Your task to perform on an android device: toggle notification dots Image 0: 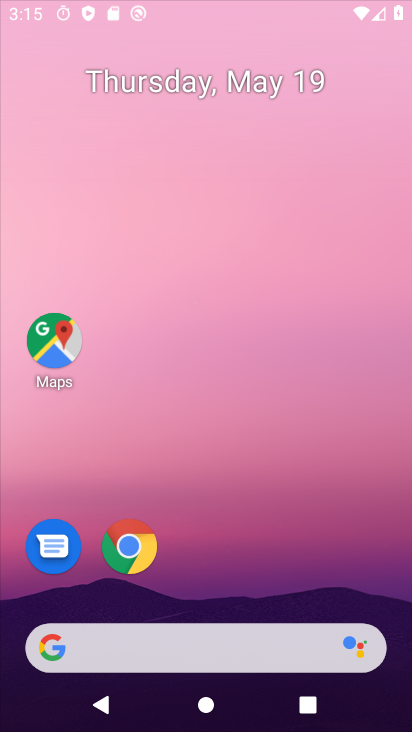
Step 0: press home button
Your task to perform on an android device: toggle notification dots Image 1: 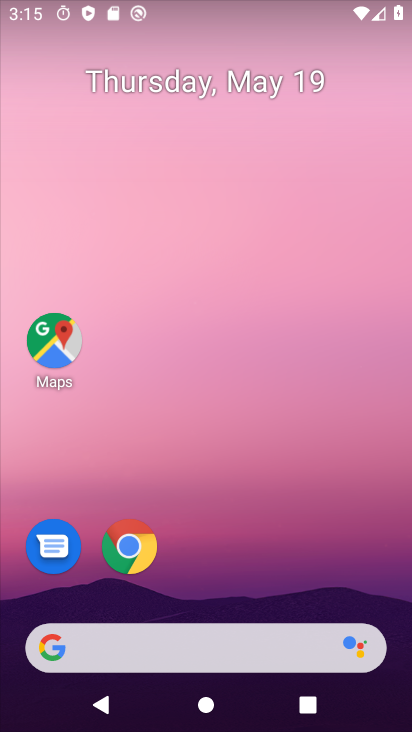
Step 1: drag from (220, 596) to (226, 55)
Your task to perform on an android device: toggle notification dots Image 2: 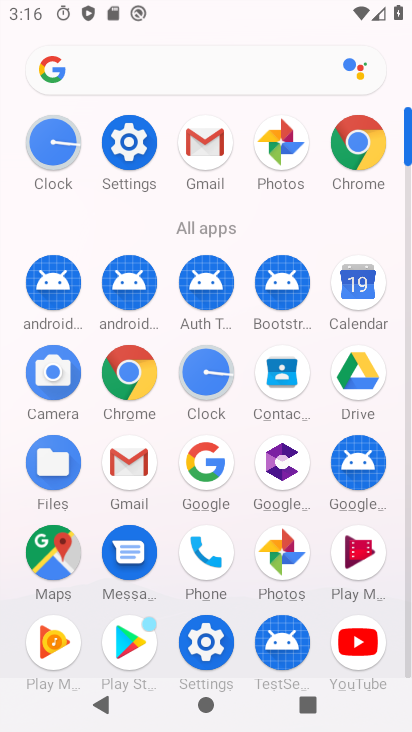
Step 2: click (129, 133)
Your task to perform on an android device: toggle notification dots Image 3: 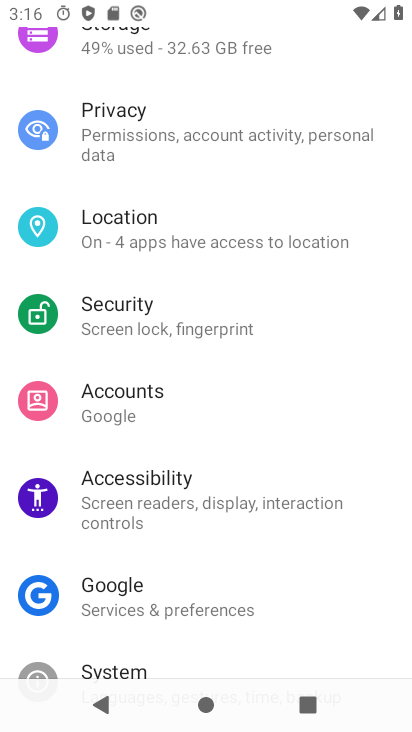
Step 3: drag from (197, 162) to (204, 587)
Your task to perform on an android device: toggle notification dots Image 4: 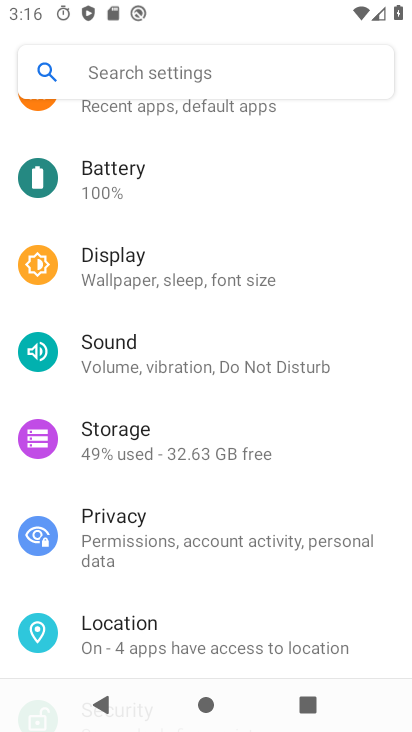
Step 4: click (176, 116)
Your task to perform on an android device: toggle notification dots Image 5: 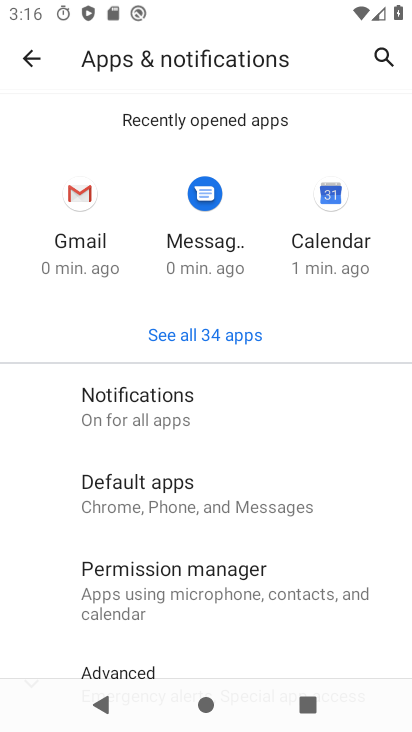
Step 5: click (204, 408)
Your task to perform on an android device: toggle notification dots Image 6: 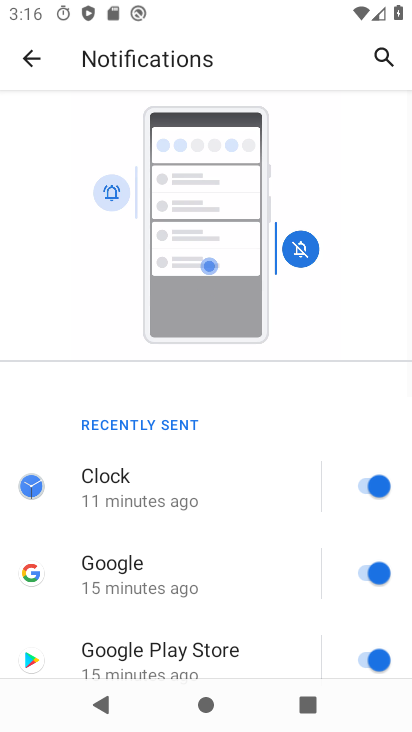
Step 6: drag from (245, 618) to (270, 110)
Your task to perform on an android device: toggle notification dots Image 7: 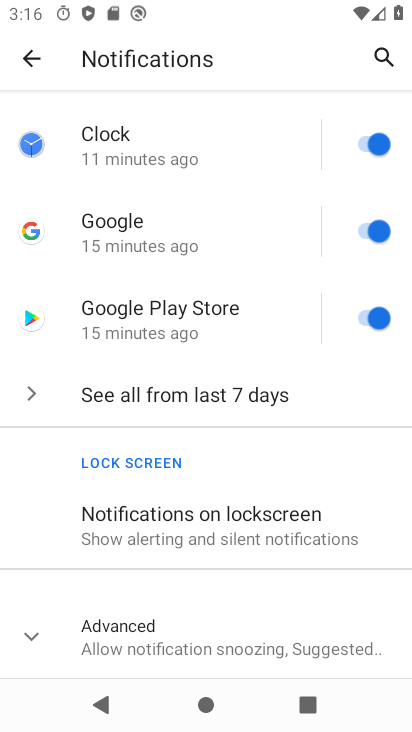
Step 7: click (148, 638)
Your task to perform on an android device: toggle notification dots Image 8: 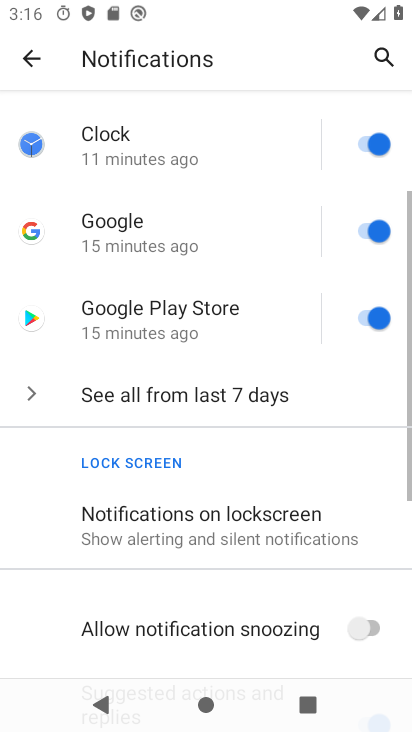
Step 8: drag from (163, 624) to (207, 159)
Your task to perform on an android device: toggle notification dots Image 9: 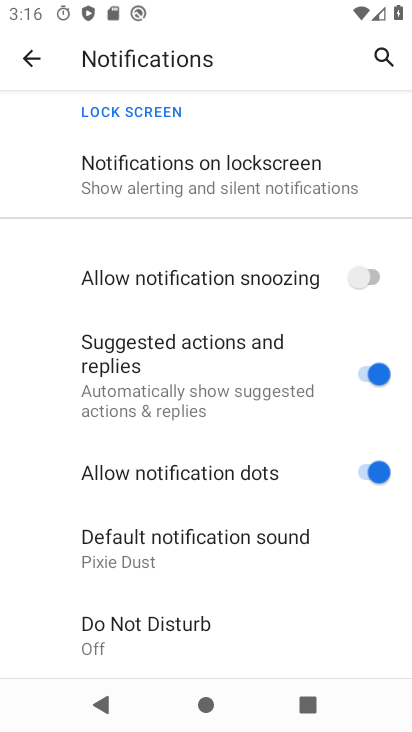
Step 9: click (360, 467)
Your task to perform on an android device: toggle notification dots Image 10: 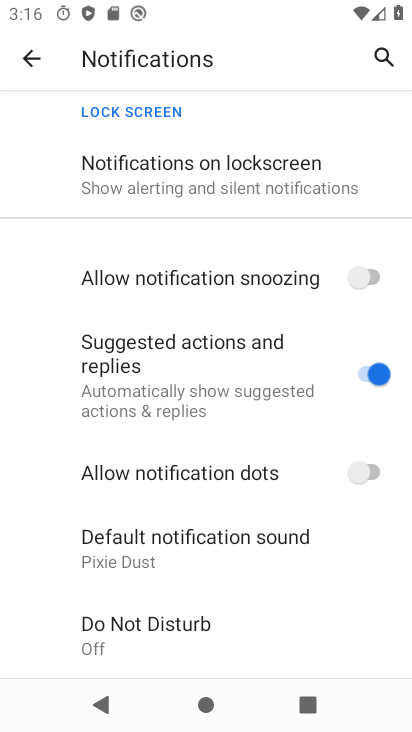
Step 10: task complete